Your task to perform on an android device: turn on improve location accuracy Image 0: 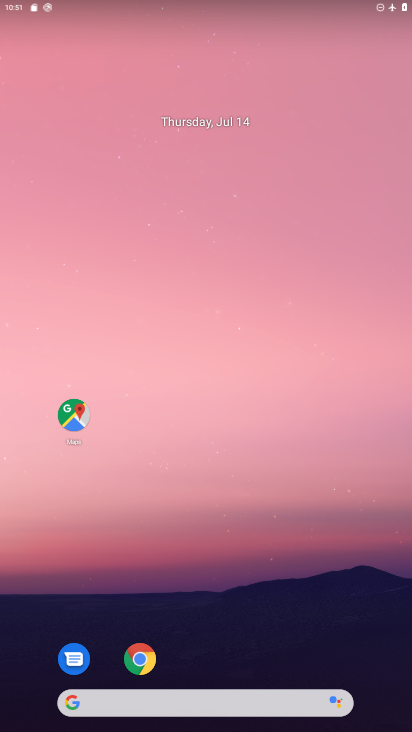
Step 0: drag from (298, 616) to (244, 129)
Your task to perform on an android device: turn on improve location accuracy Image 1: 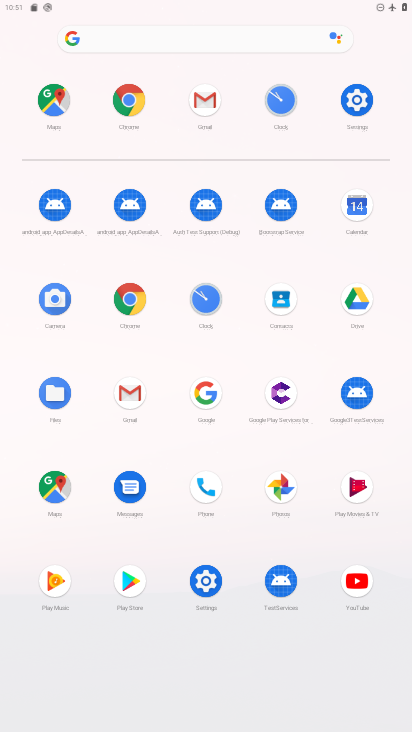
Step 1: drag from (255, 560) to (235, 250)
Your task to perform on an android device: turn on improve location accuracy Image 2: 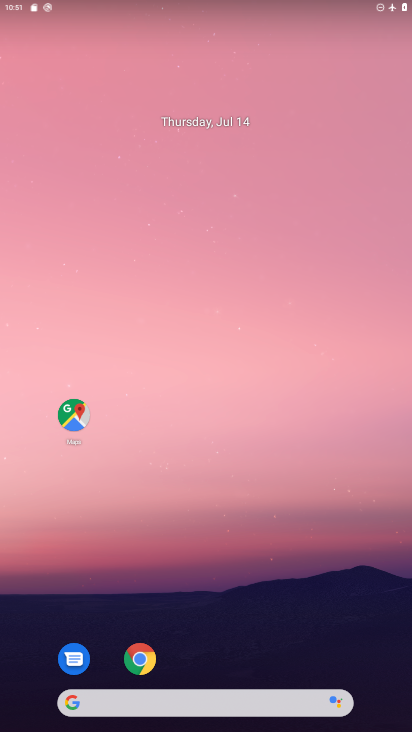
Step 2: drag from (271, 590) to (231, 100)
Your task to perform on an android device: turn on improve location accuracy Image 3: 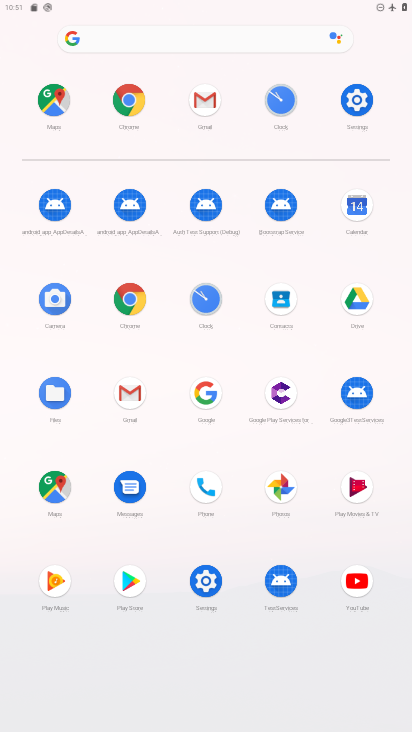
Step 3: click (359, 104)
Your task to perform on an android device: turn on improve location accuracy Image 4: 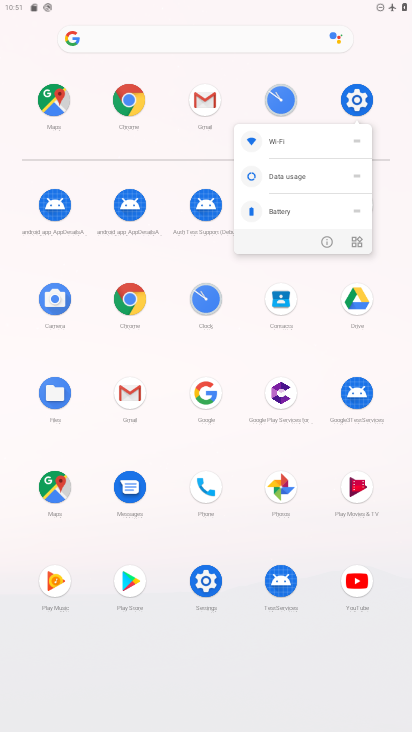
Step 4: click (356, 96)
Your task to perform on an android device: turn on improve location accuracy Image 5: 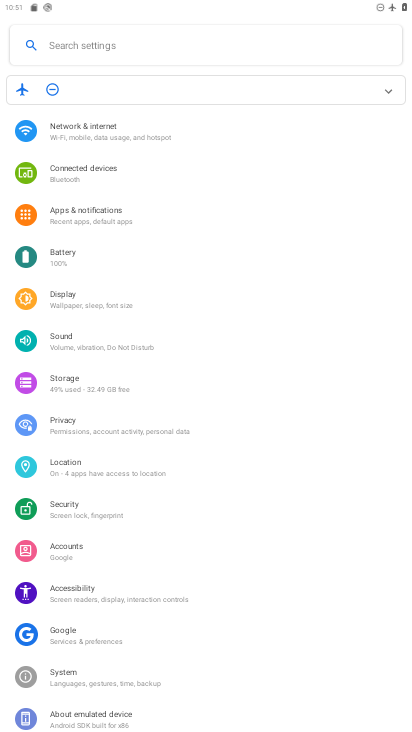
Step 5: click (66, 470)
Your task to perform on an android device: turn on improve location accuracy Image 6: 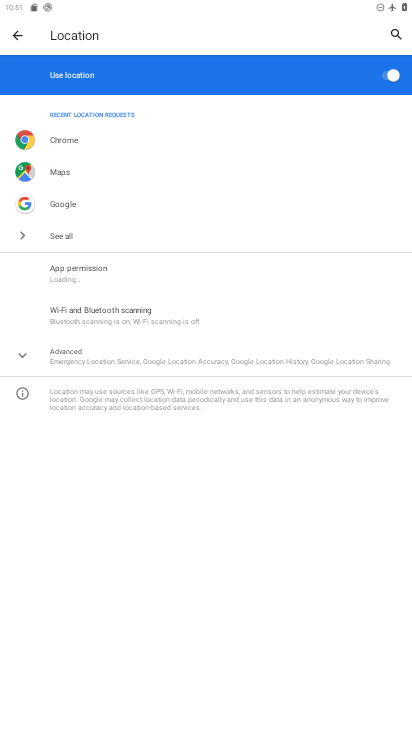
Step 6: click (100, 361)
Your task to perform on an android device: turn on improve location accuracy Image 7: 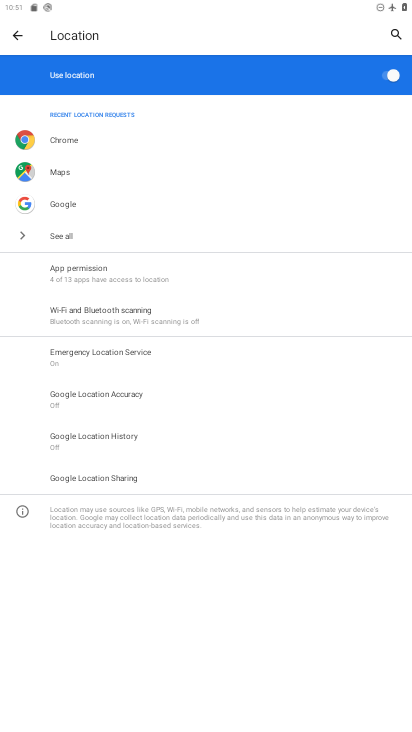
Step 7: click (108, 396)
Your task to perform on an android device: turn on improve location accuracy Image 8: 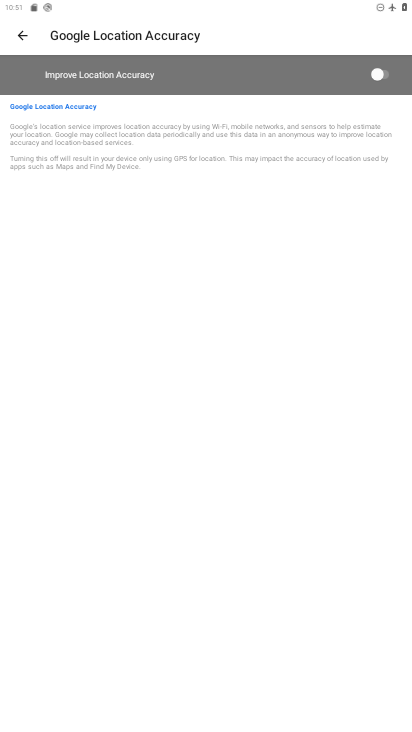
Step 8: click (381, 74)
Your task to perform on an android device: turn on improve location accuracy Image 9: 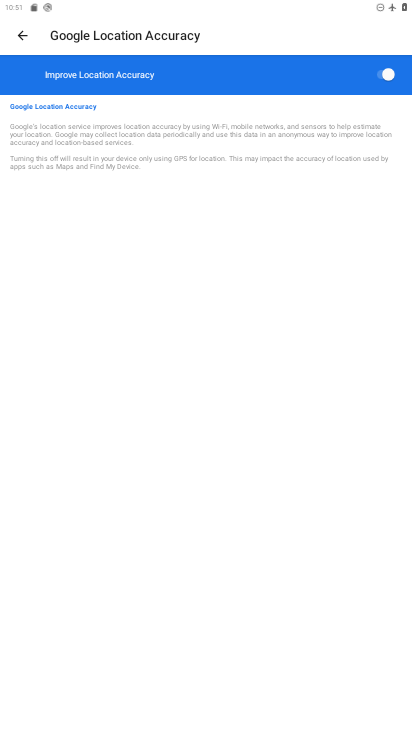
Step 9: task complete